Your task to perform on an android device: empty trash in the gmail app Image 0: 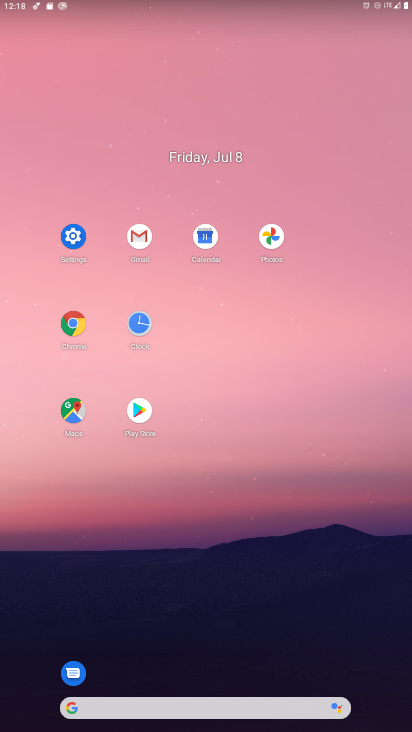
Step 0: click (144, 233)
Your task to perform on an android device: empty trash in the gmail app Image 1: 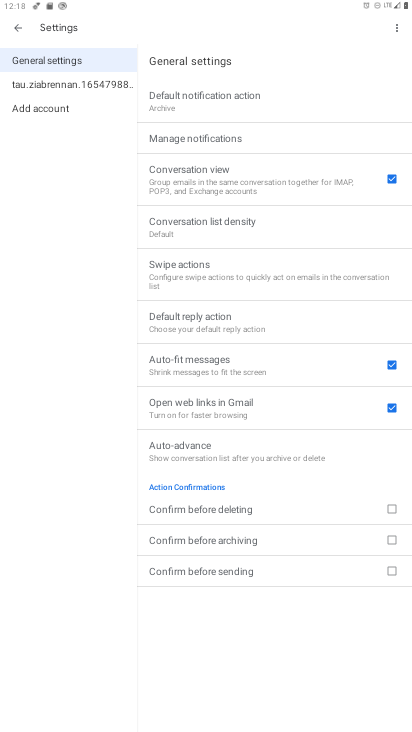
Step 1: press home button
Your task to perform on an android device: empty trash in the gmail app Image 2: 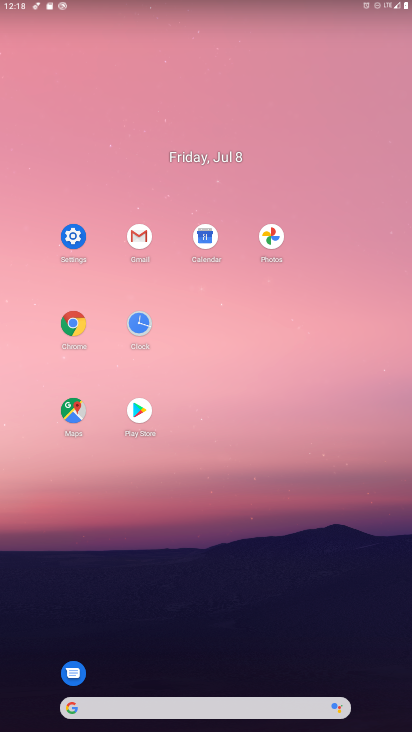
Step 2: click (134, 246)
Your task to perform on an android device: empty trash in the gmail app Image 3: 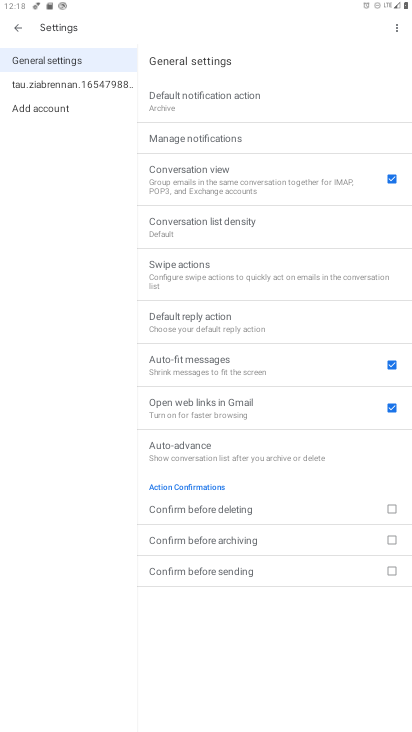
Step 3: click (67, 81)
Your task to perform on an android device: empty trash in the gmail app Image 4: 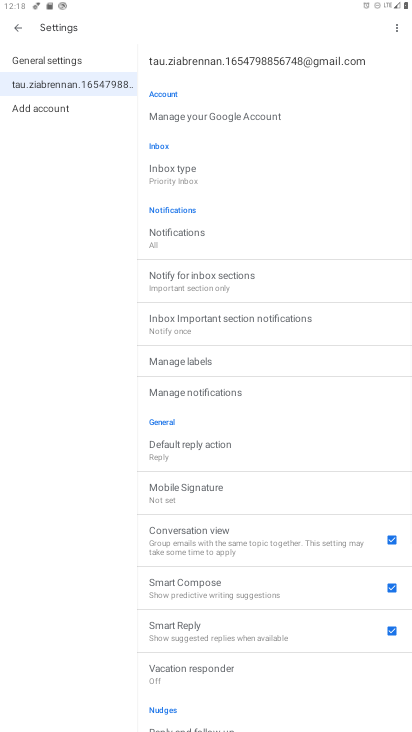
Step 4: click (13, 32)
Your task to perform on an android device: empty trash in the gmail app Image 5: 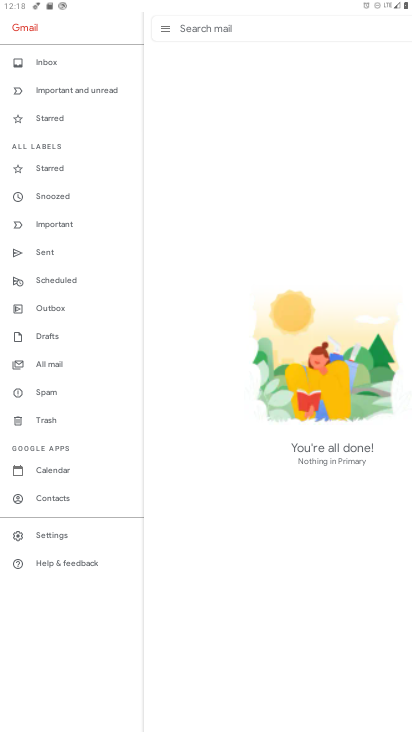
Step 5: click (59, 394)
Your task to perform on an android device: empty trash in the gmail app Image 6: 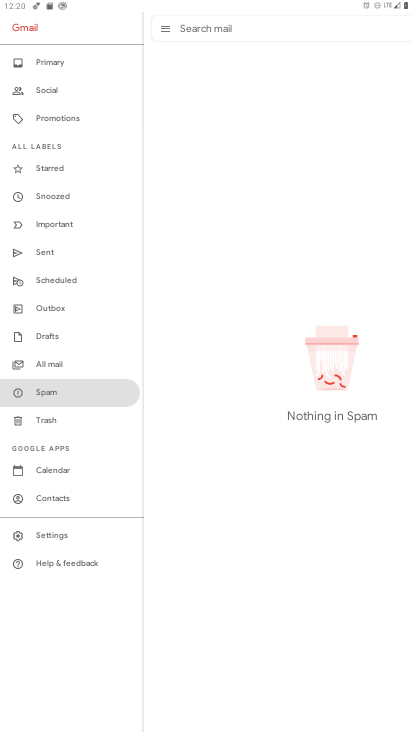
Step 6: task complete